Your task to perform on an android device: turn off airplane mode Image 0: 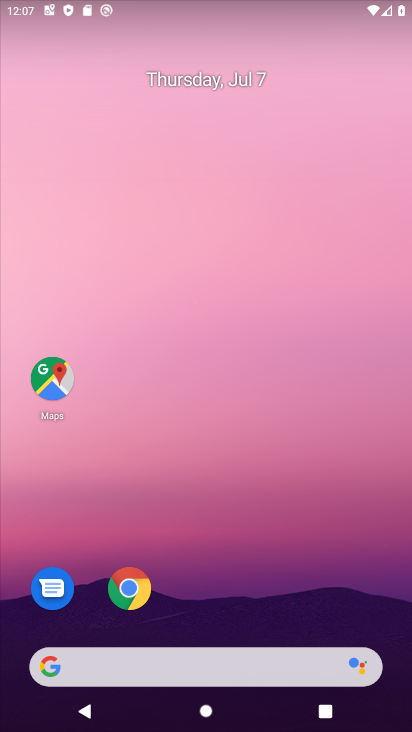
Step 0: drag from (244, 703) to (235, 146)
Your task to perform on an android device: turn off airplane mode Image 1: 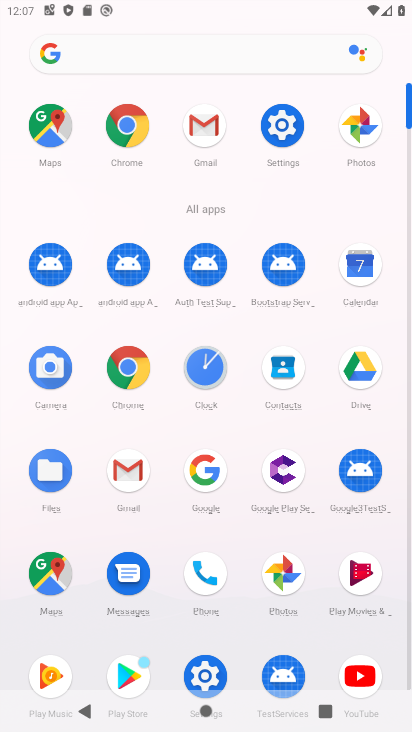
Step 1: click (282, 125)
Your task to perform on an android device: turn off airplane mode Image 2: 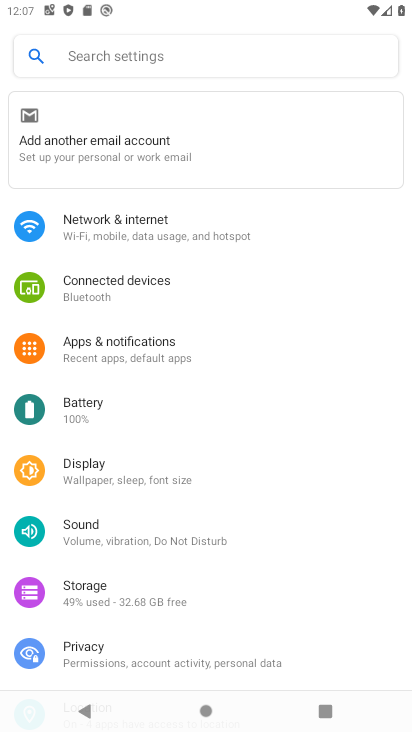
Step 2: click (101, 225)
Your task to perform on an android device: turn off airplane mode Image 3: 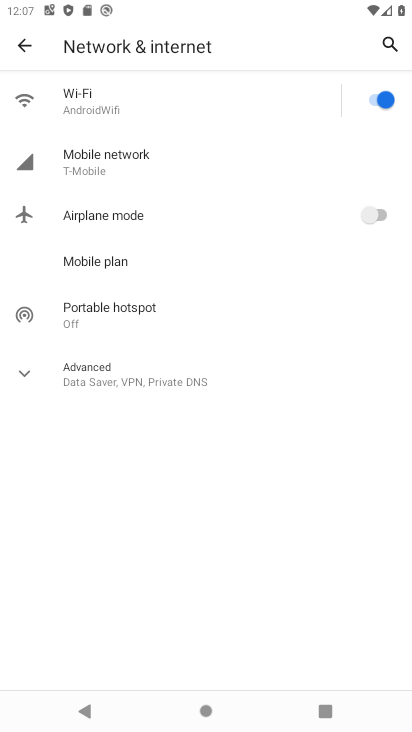
Step 3: task complete